Your task to perform on an android device: Open Reddit.com Image 0: 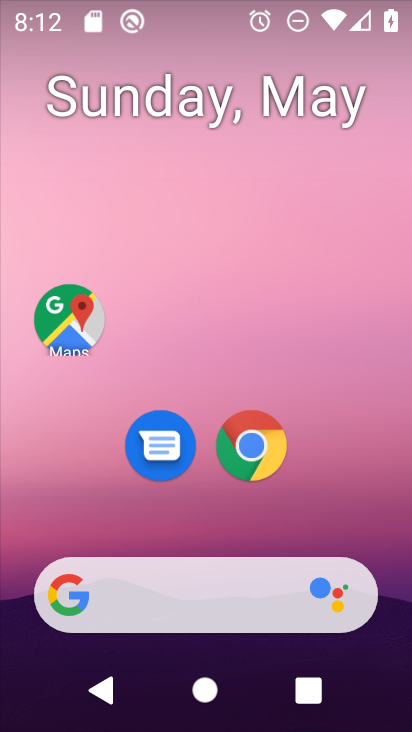
Step 0: click (299, 47)
Your task to perform on an android device: Open Reddit.com Image 1: 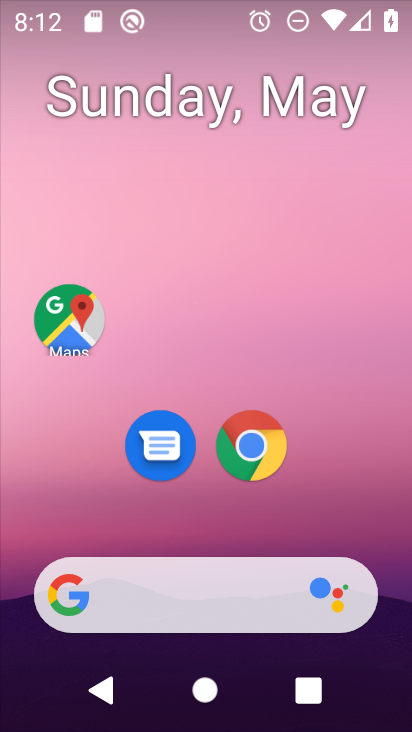
Step 1: drag from (182, 524) to (204, 66)
Your task to perform on an android device: Open Reddit.com Image 2: 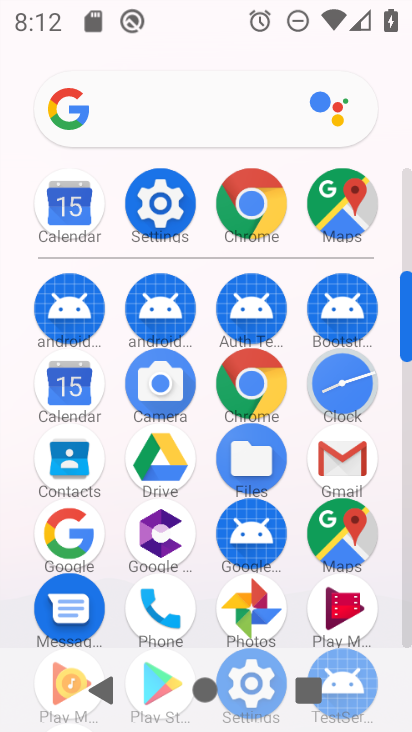
Step 2: click (260, 195)
Your task to perform on an android device: Open Reddit.com Image 3: 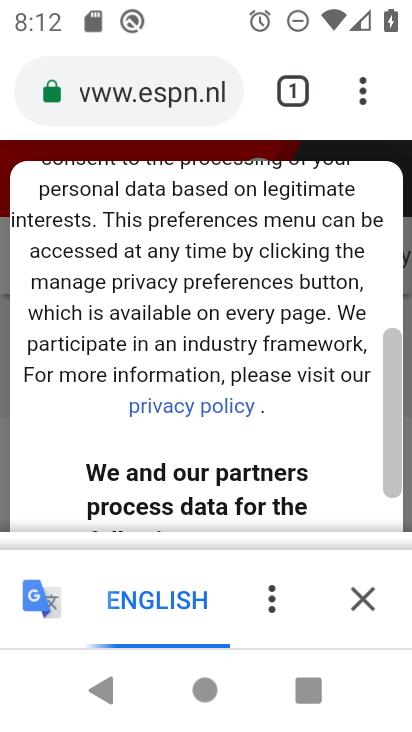
Step 3: click (194, 101)
Your task to perform on an android device: Open Reddit.com Image 4: 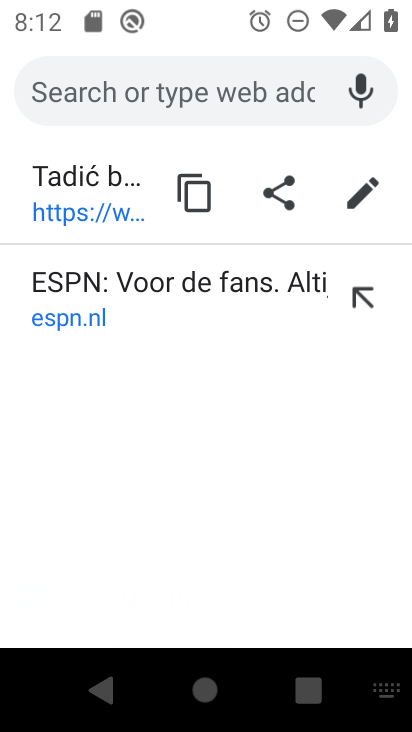
Step 4: type "reddit.com"
Your task to perform on an android device: Open Reddit.com Image 5: 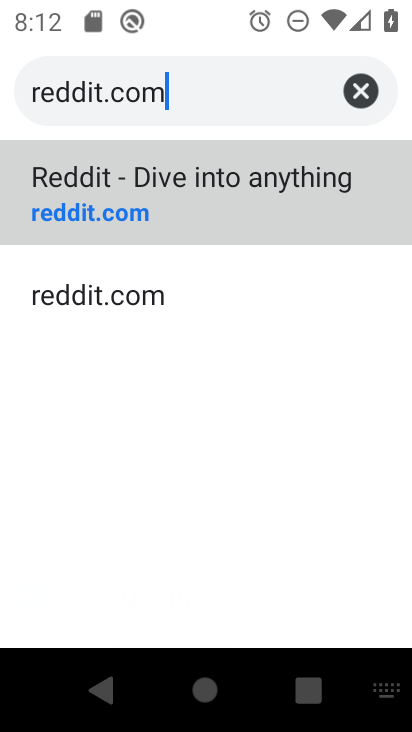
Step 5: click (190, 183)
Your task to perform on an android device: Open Reddit.com Image 6: 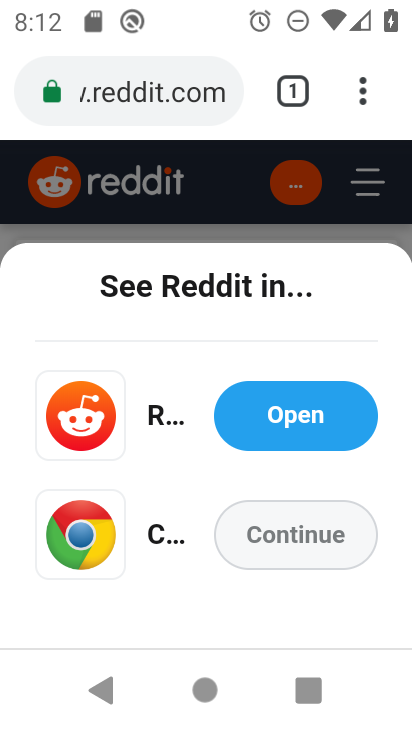
Step 6: click (321, 549)
Your task to perform on an android device: Open Reddit.com Image 7: 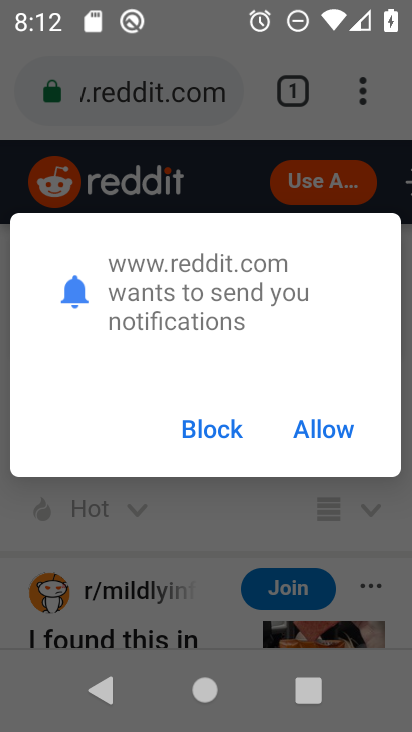
Step 7: click (223, 441)
Your task to perform on an android device: Open Reddit.com Image 8: 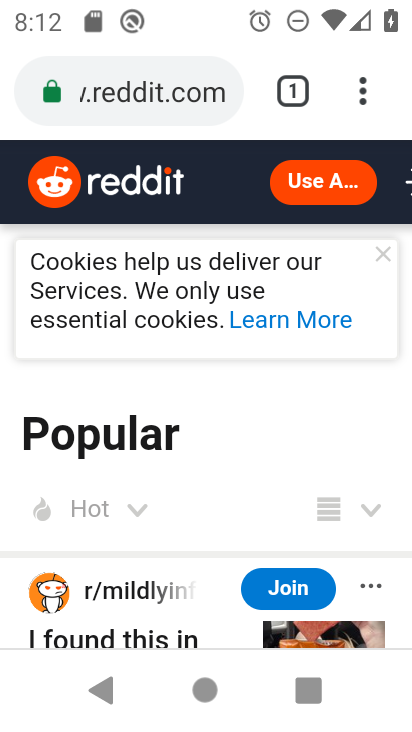
Step 8: task complete